Your task to perform on an android device: turn on improve location accuracy Image 0: 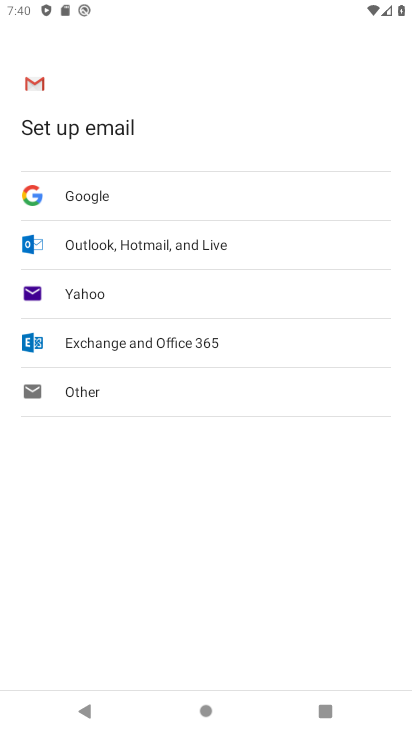
Step 0: press home button
Your task to perform on an android device: turn on improve location accuracy Image 1: 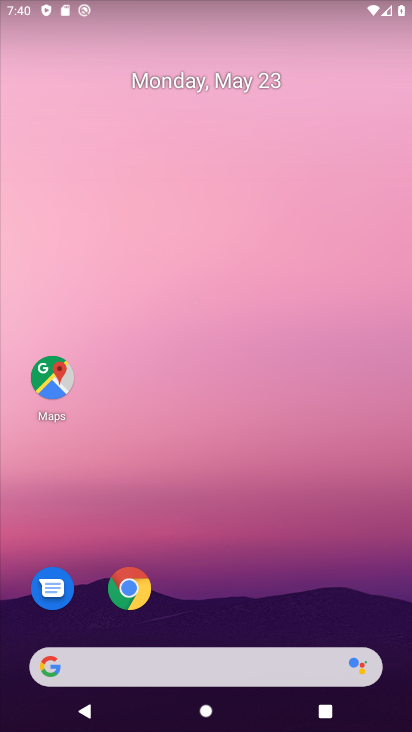
Step 1: drag from (398, 692) to (370, 189)
Your task to perform on an android device: turn on improve location accuracy Image 2: 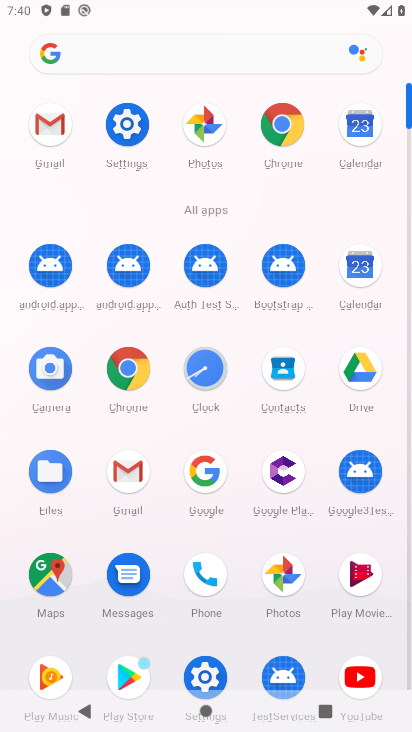
Step 2: click (129, 128)
Your task to perform on an android device: turn on improve location accuracy Image 3: 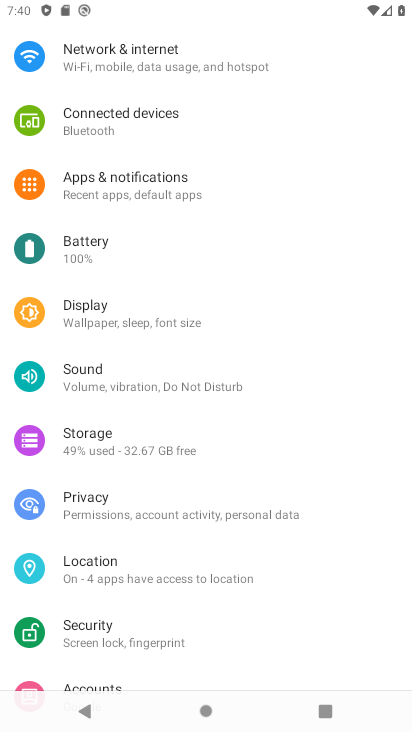
Step 3: click (90, 567)
Your task to perform on an android device: turn on improve location accuracy Image 4: 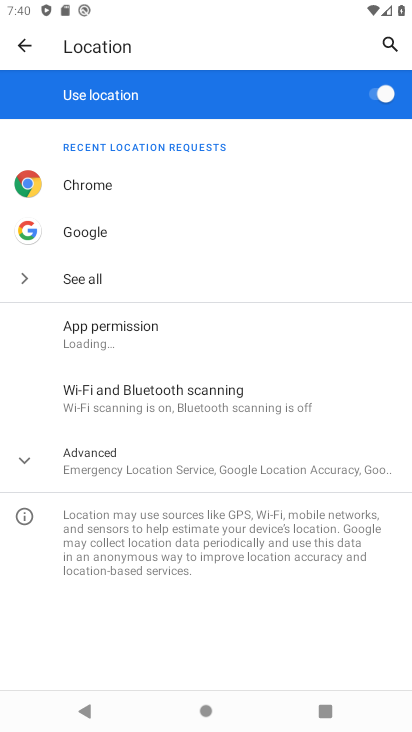
Step 4: click (26, 457)
Your task to perform on an android device: turn on improve location accuracy Image 5: 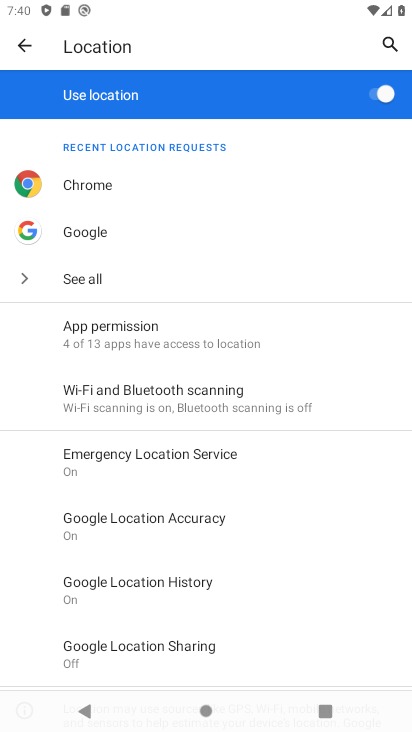
Step 5: click (132, 519)
Your task to perform on an android device: turn on improve location accuracy Image 6: 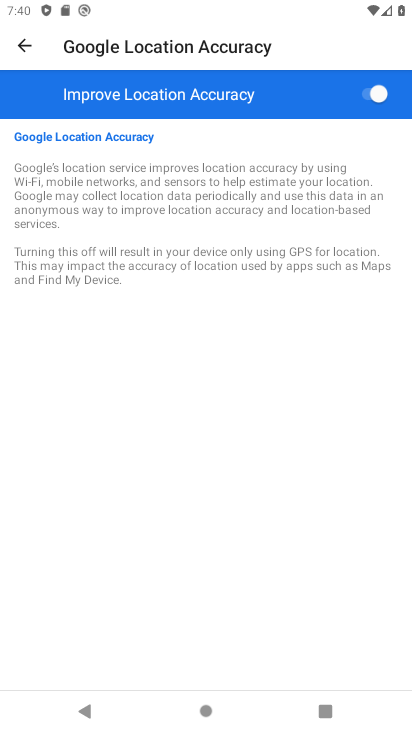
Step 6: task complete